Your task to perform on an android device: turn off picture-in-picture Image 0: 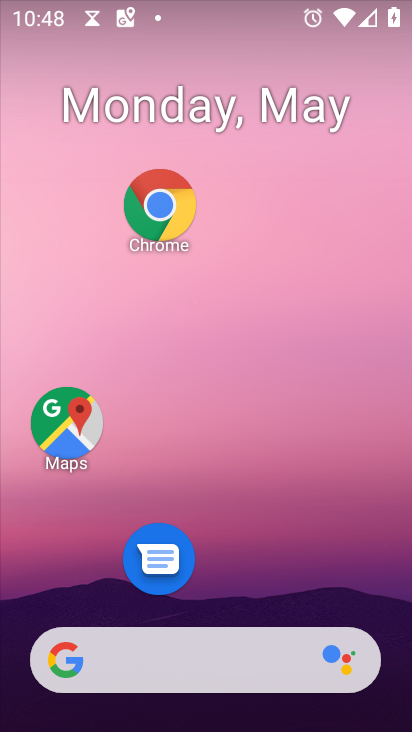
Step 0: drag from (183, 717) to (104, 156)
Your task to perform on an android device: turn off picture-in-picture Image 1: 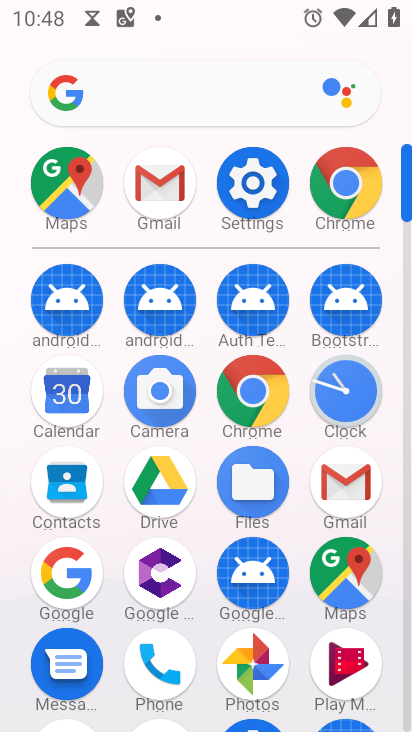
Step 1: click (347, 181)
Your task to perform on an android device: turn off picture-in-picture Image 2: 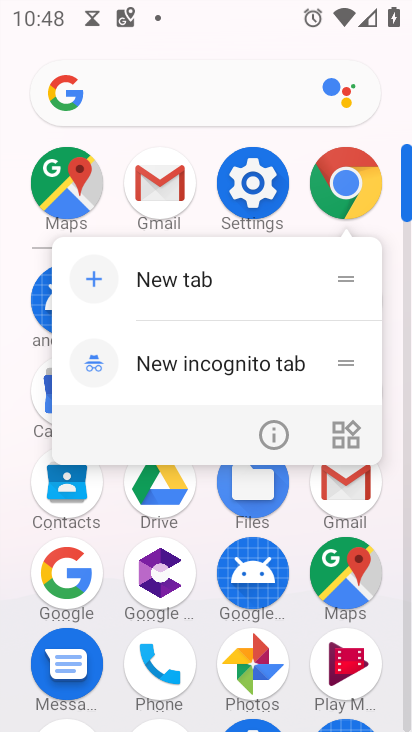
Step 2: click (269, 428)
Your task to perform on an android device: turn off picture-in-picture Image 3: 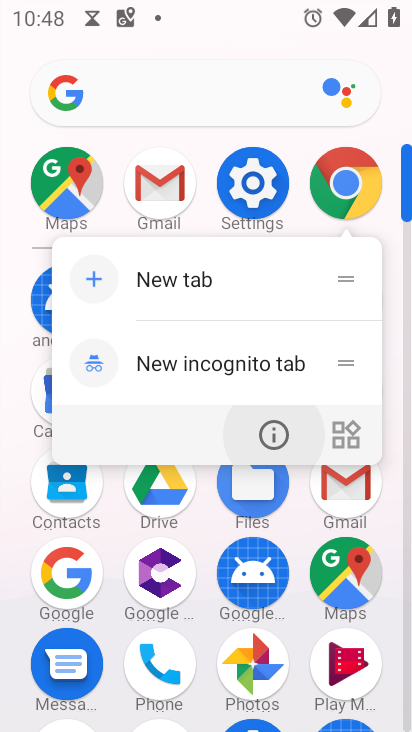
Step 3: click (266, 432)
Your task to perform on an android device: turn off picture-in-picture Image 4: 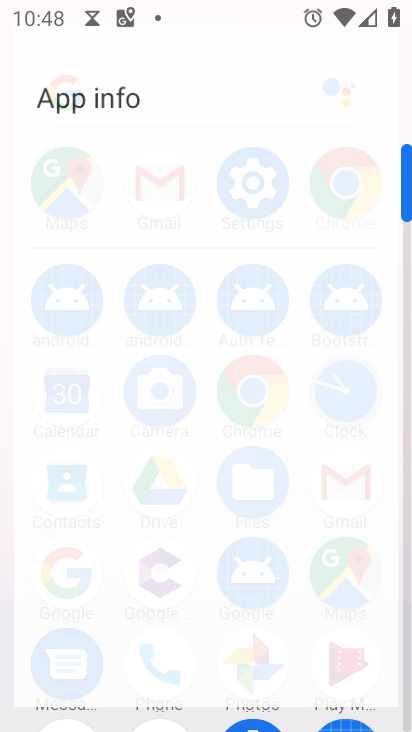
Step 4: click (266, 433)
Your task to perform on an android device: turn off picture-in-picture Image 5: 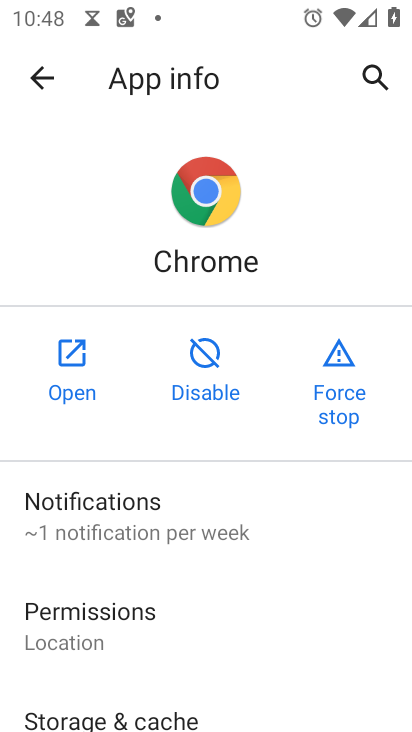
Step 5: drag from (177, 588) to (144, 261)
Your task to perform on an android device: turn off picture-in-picture Image 6: 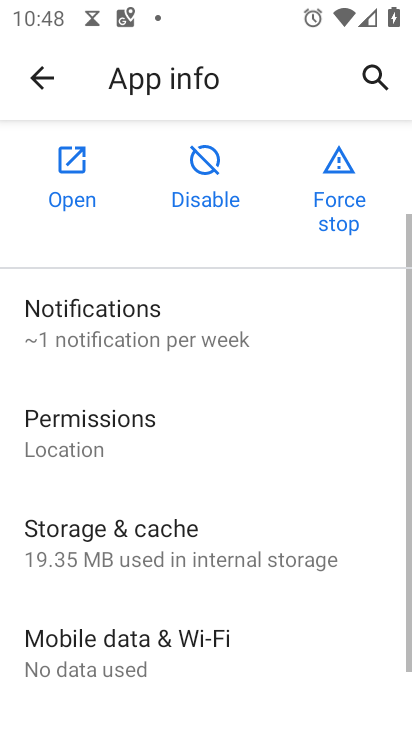
Step 6: drag from (167, 488) to (167, 50)
Your task to perform on an android device: turn off picture-in-picture Image 7: 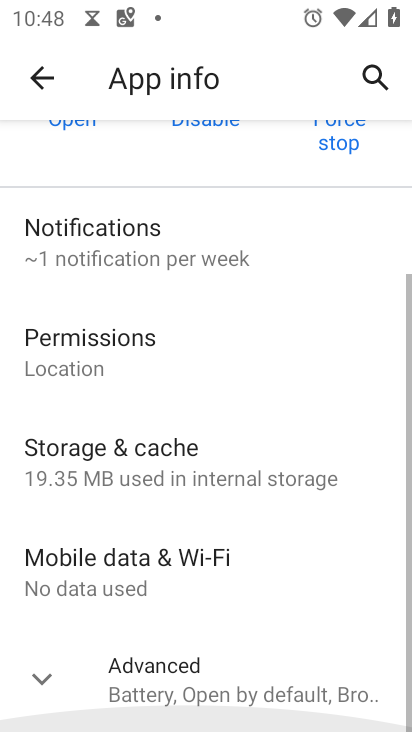
Step 7: drag from (209, 476) to (239, 126)
Your task to perform on an android device: turn off picture-in-picture Image 8: 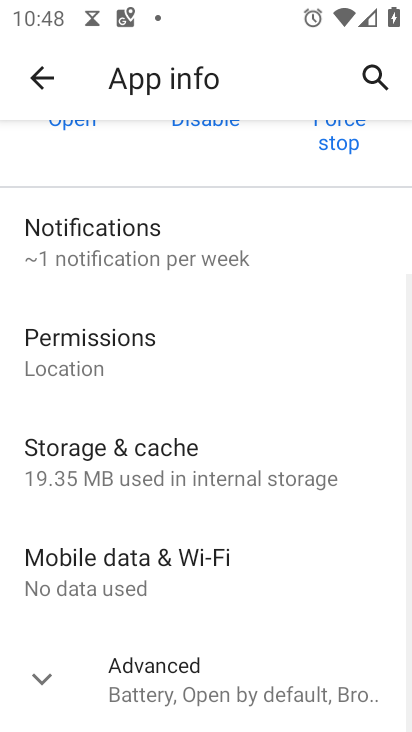
Step 8: click (185, 683)
Your task to perform on an android device: turn off picture-in-picture Image 9: 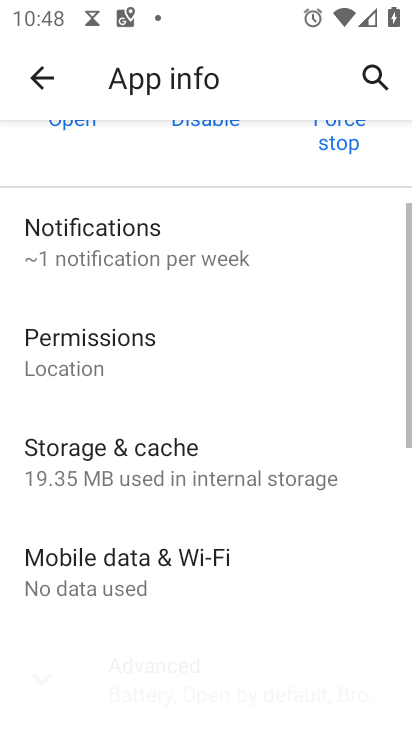
Step 9: click (185, 683)
Your task to perform on an android device: turn off picture-in-picture Image 10: 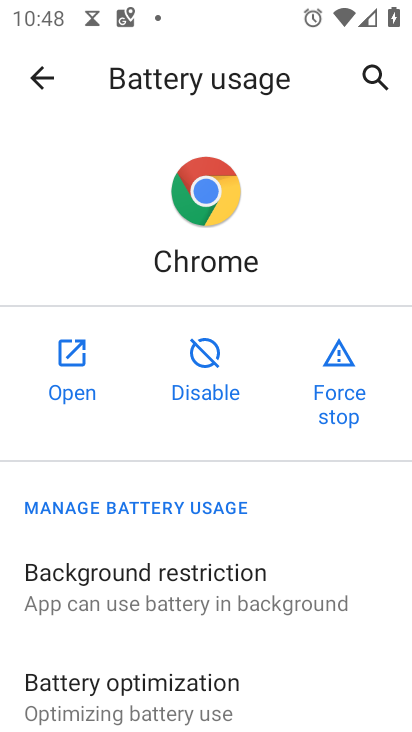
Step 10: drag from (130, 564) to (123, 123)
Your task to perform on an android device: turn off picture-in-picture Image 11: 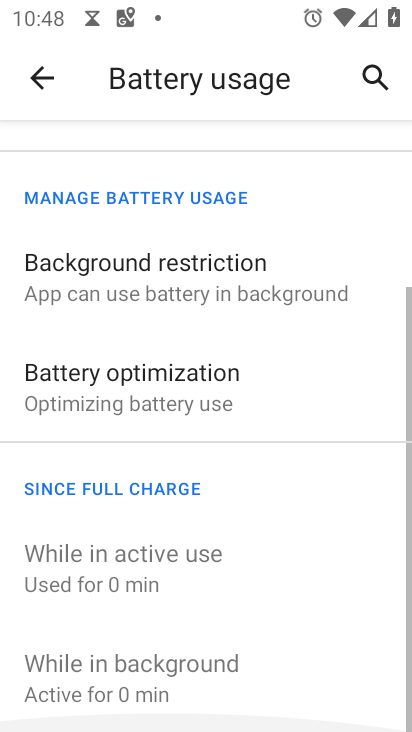
Step 11: drag from (155, 531) to (155, 144)
Your task to perform on an android device: turn off picture-in-picture Image 12: 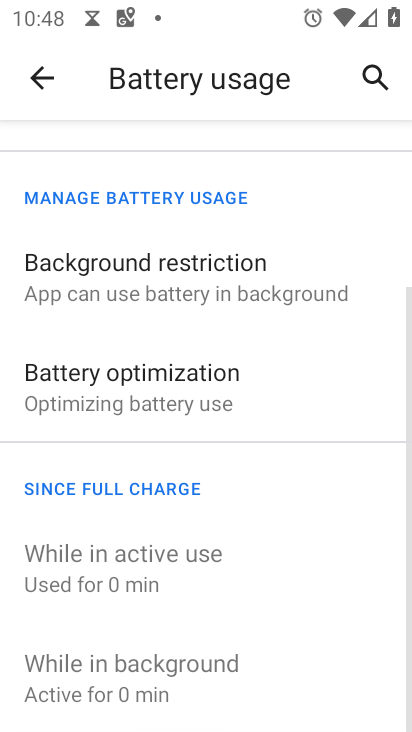
Step 12: click (40, 75)
Your task to perform on an android device: turn off picture-in-picture Image 13: 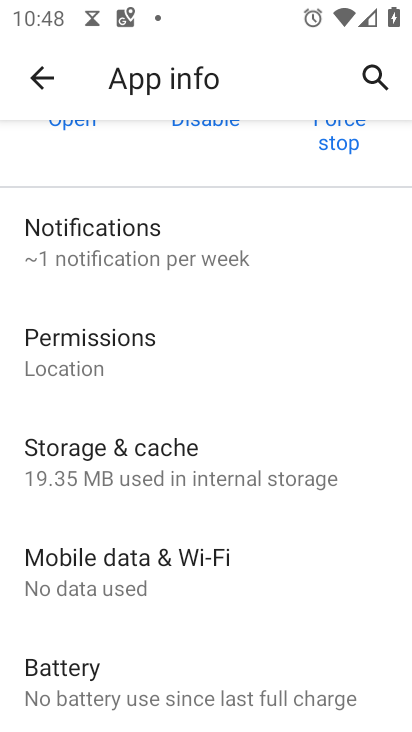
Step 13: drag from (179, 481) to (155, 254)
Your task to perform on an android device: turn off picture-in-picture Image 14: 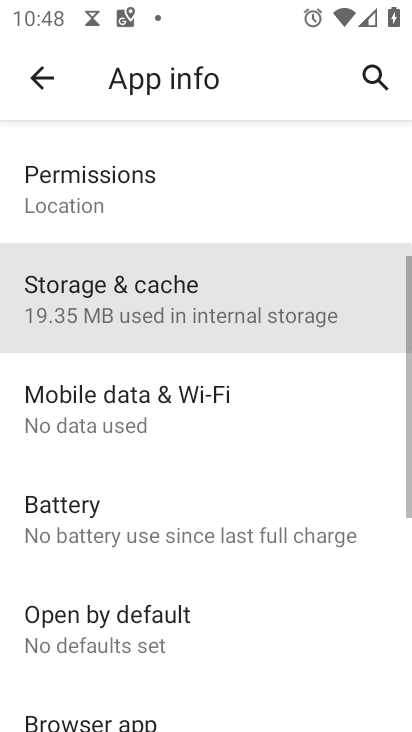
Step 14: drag from (234, 532) to (263, 170)
Your task to perform on an android device: turn off picture-in-picture Image 15: 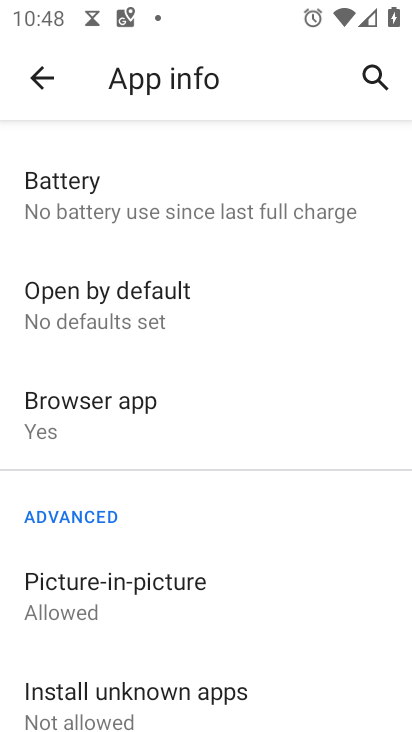
Step 15: click (88, 593)
Your task to perform on an android device: turn off picture-in-picture Image 16: 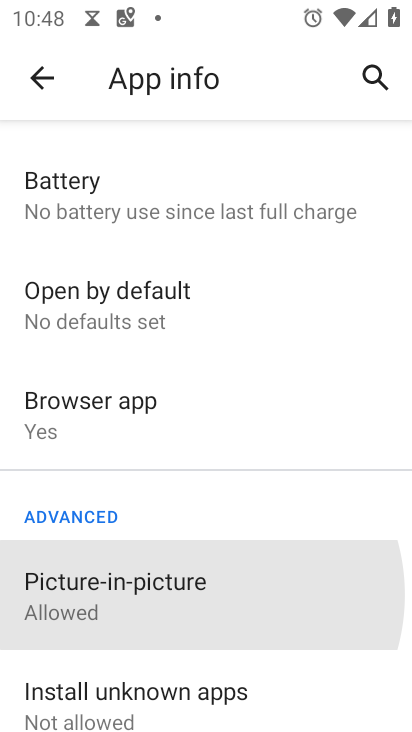
Step 16: click (85, 593)
Your task to perform on an android device: turn off picture-in-picture Image 17: 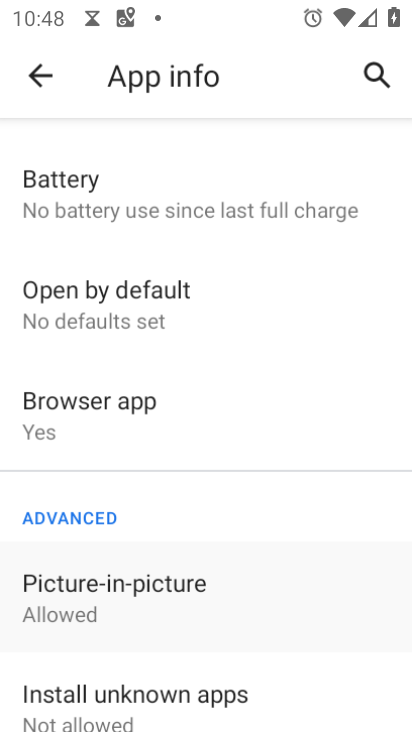
Step 17: click (85, 593)
Your task to perform on an android device: turn off picture-in-picture Image 18: 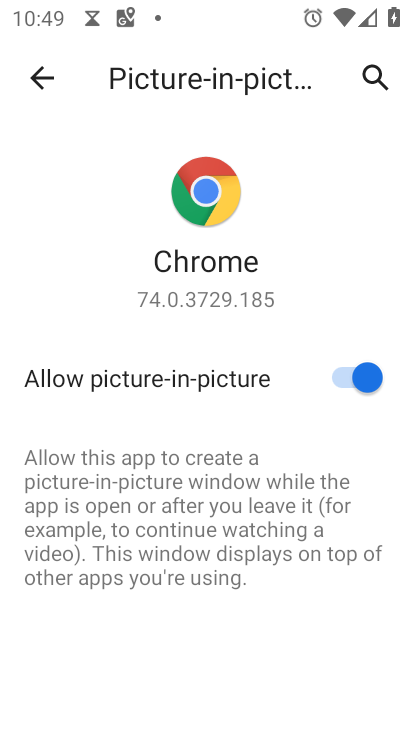
Step 18: click (353, 384)
Your task to perform on an android device: turn off picture-in-picture Image 19: 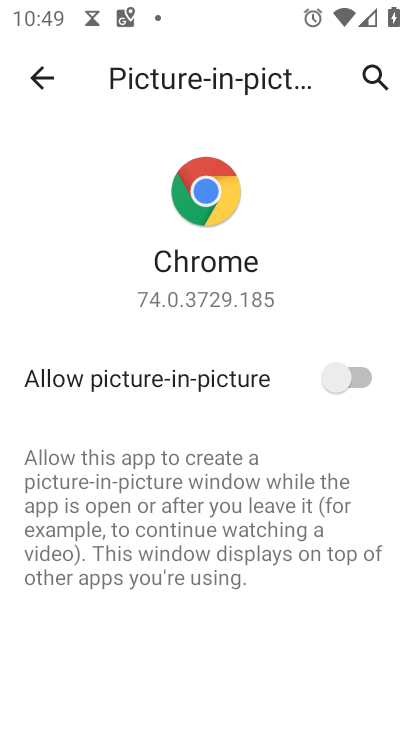
Step 19: task complete